Your task to perform on an android device: turn on priority inbox in the gmail app Image 0: 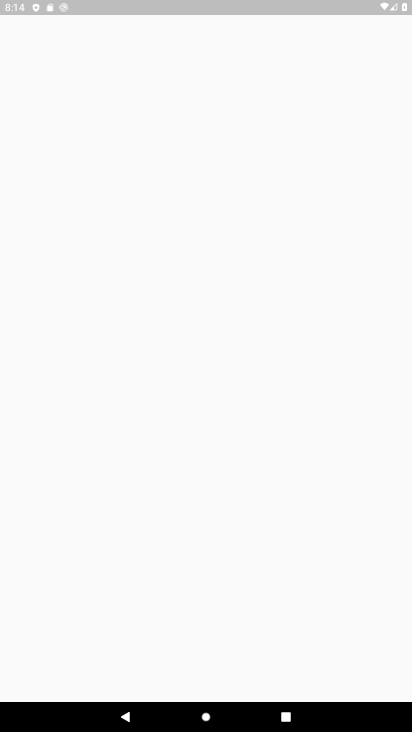
Step 0: drag from (213, 579) to (258, 160)
Your task to perform on an android device: turn on priority inbox in the gmail app Image 1: 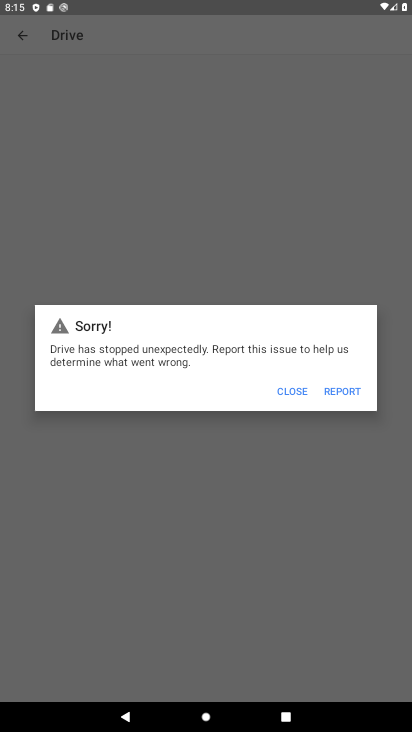
Step 1: press home button
Your task to perform on an android device: turn on priority inbox in the gmail app Image 2: 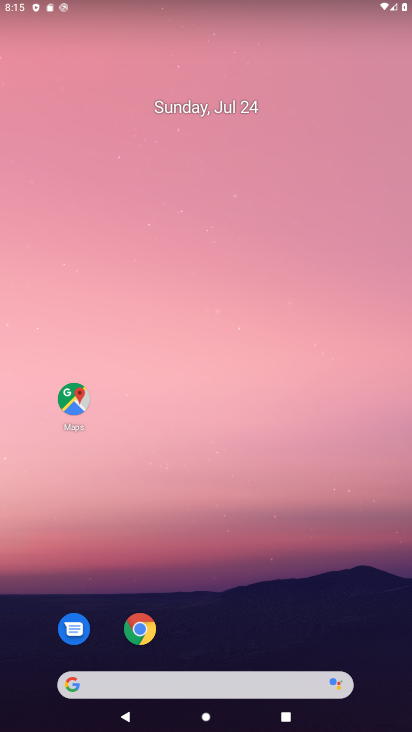
Step 2: drag from (197, 644) to (278, 211)
Your task to perform on an android device: turn on priority inbox in the gmail app Image 3: 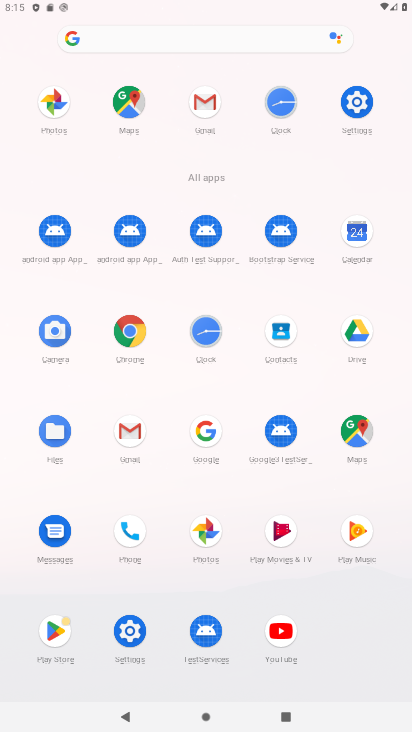
Step 3: click (131, 427)
Your task to perform on an android device: turn on priority inbox in the gmail app Image 4: 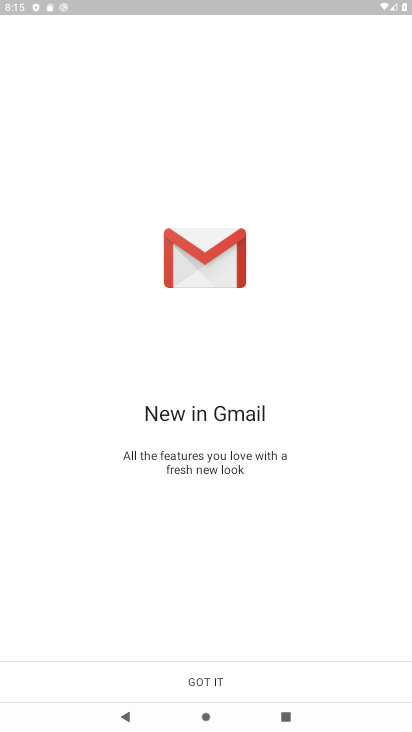
Step 4: click (197, 676)
Your task to perform on an android device: turn on priority inbox in the gmail app Image 5: 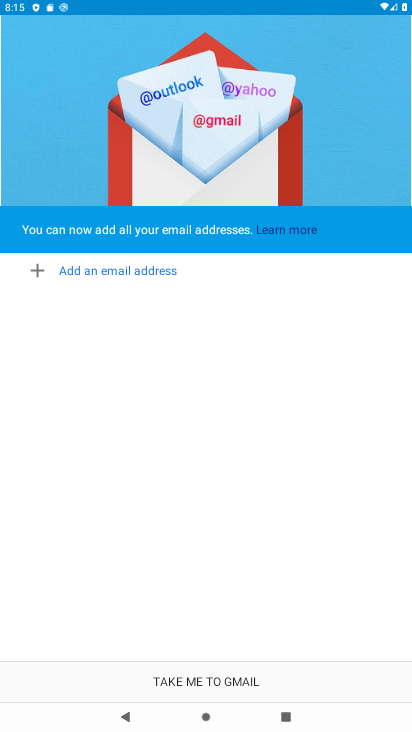
Step 5: click (195, 675)
Your task to perform on an android device: turn on priority inbox in the gmail app Image 6: 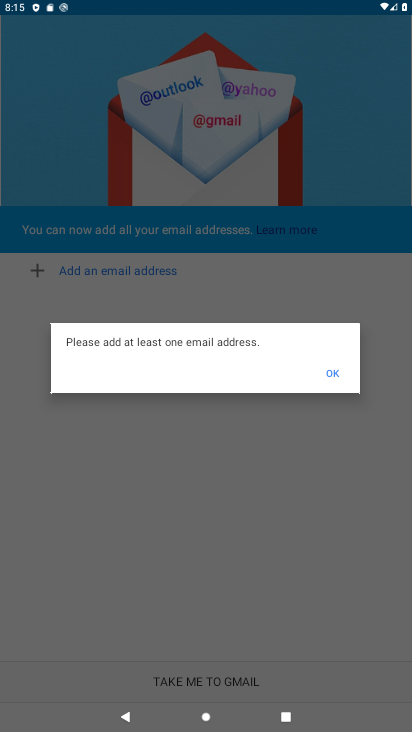
Step 6: task complete